Your task to perform on an android device: Open Amazon Image 0: 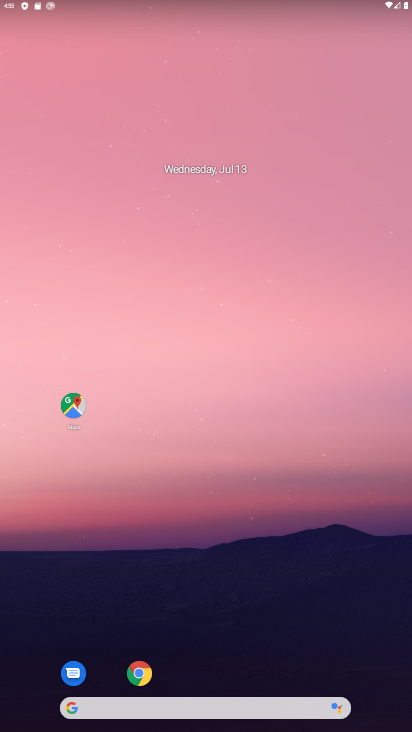
Step 0: click (132, 679)
Your task to perform on an android device: Open Amazon Image 1: 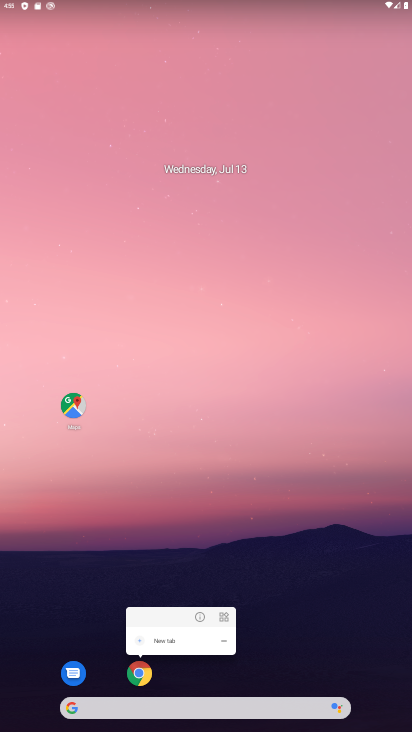
Step 1: click (133, 678)
Your task to perform on an android device: Open Amazon Image 2: 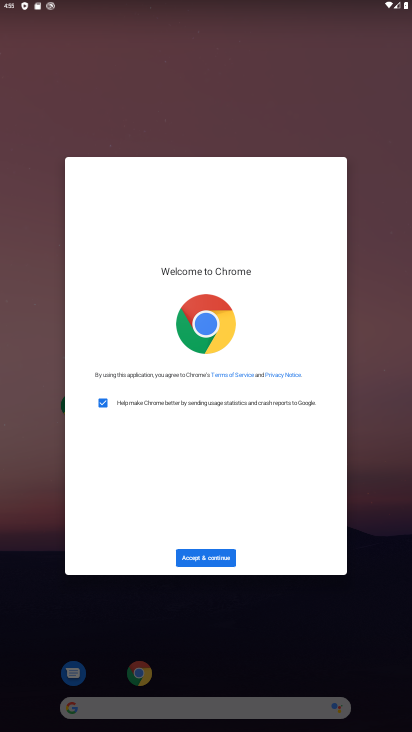
Step 2: click (198, 555)
Your task to perform on an android device: Open Amazon Image 3: 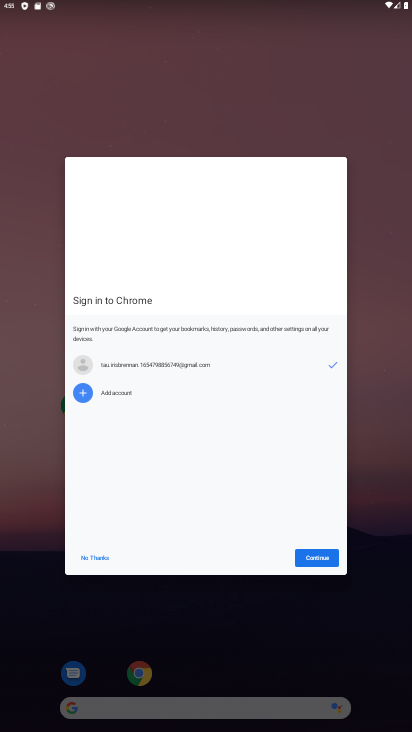
Step 3: click (314, 559)
Your task to perform on an android device: Open Amazon Image 4: 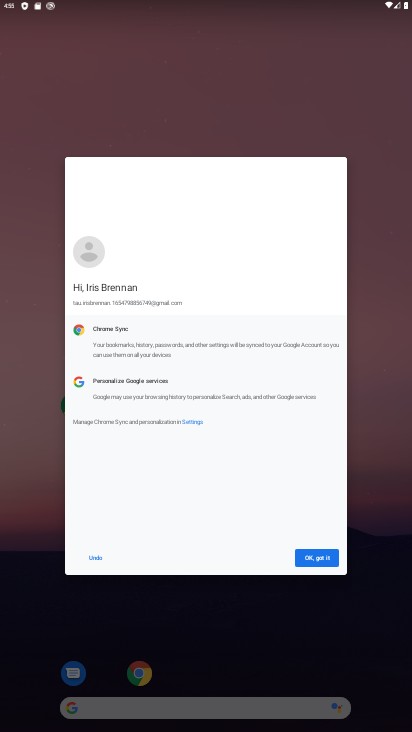
Step 4: click (301, 556)
Your task to perform on an android device: Open Amazon Image 5: 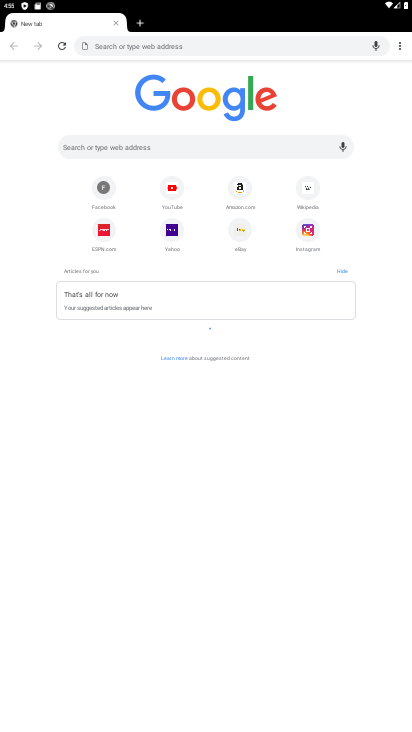
Step 5: click (236, 194)
Your task to perform on an android device: Open Amazon Image 6: 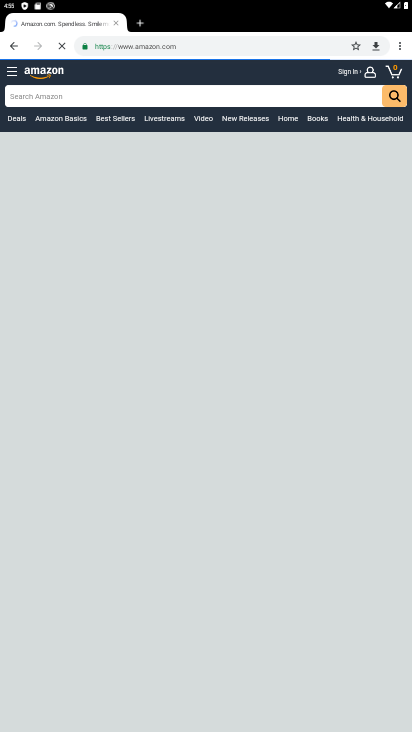
Step 6: task complete